Your task to perform on an android device: turn on translation in the chrome app Image 0: 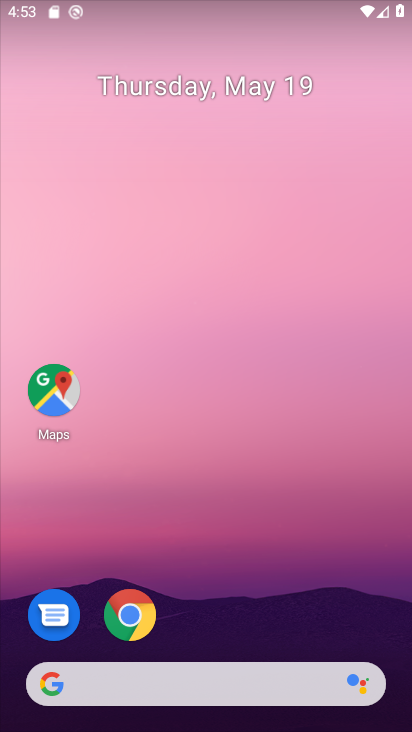
Step 0: drag from (212, 606) to (309, 58)
Your task to perform on an android device: turn on translation in the chrome app Image 1: 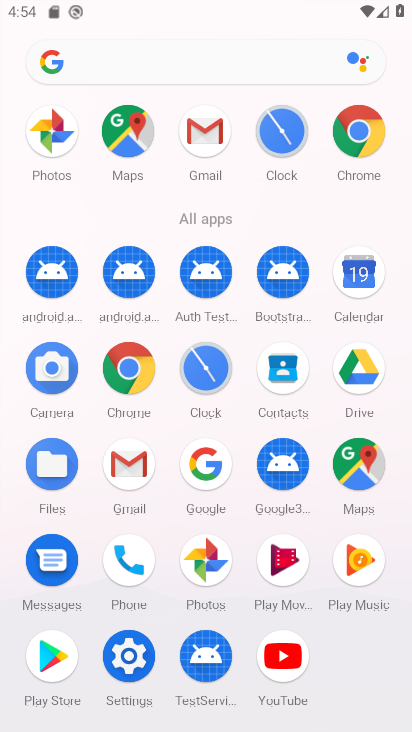
Step 1: click (124, 365)
Your task to perform on an android device: turn on translation in the chrome app Image 2: 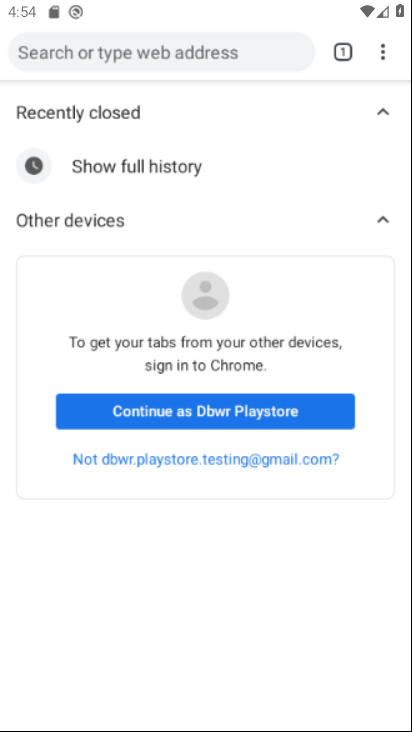
Step 2: click (384, 57)
Your task to perform on an android device: turn on translation in the chrome app Image 3: 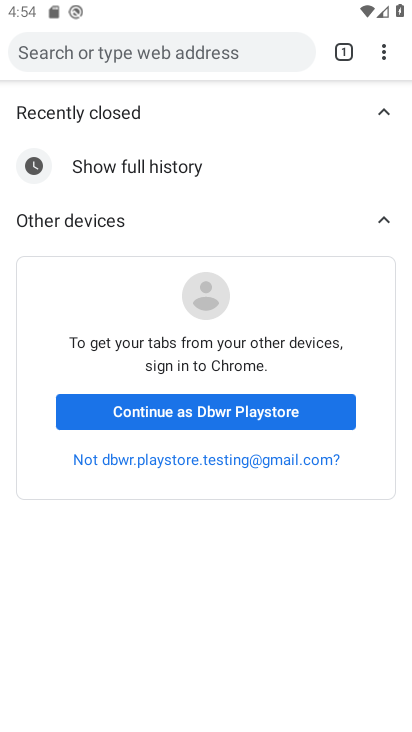
Step 3: click (384, 57)
Your task to perform on an android device: turn on translation in the chrome app Image 4: 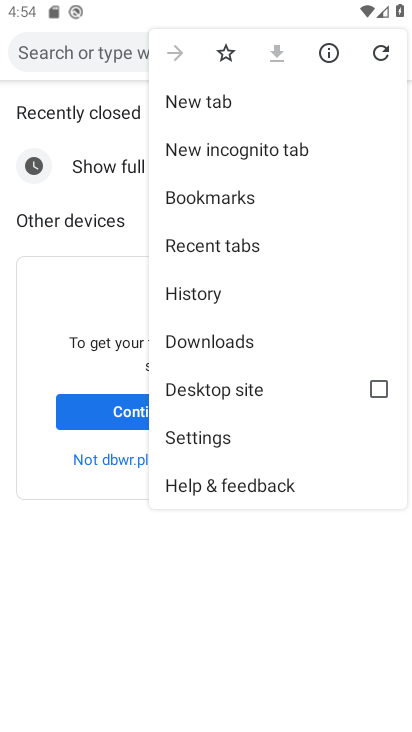
Step 4: click (230, 441)
Your task to perform on an android device: turn on translation in the chrome app Image 5: 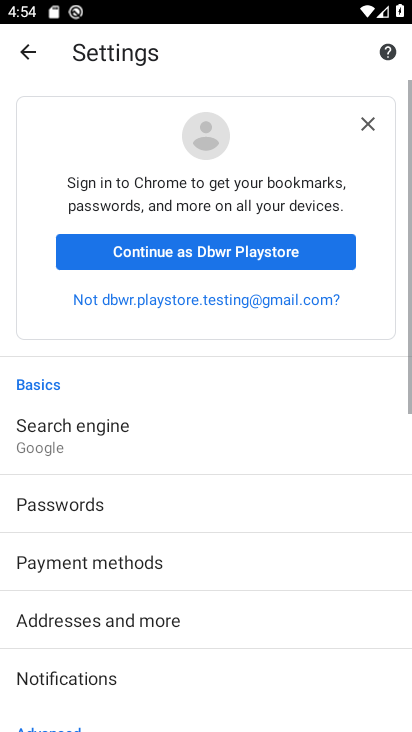
Step 5: drag from (225, 638) to (239, 78)
Your task to perform on an android device: turn on translation in the chrome app Image 6: 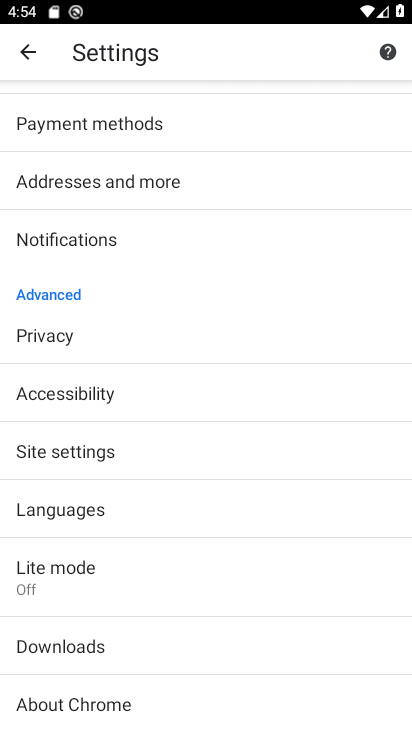
Step 6: click (81, 512)
Your task to perform on an android device: turn on translation in the chrome app Image 7: 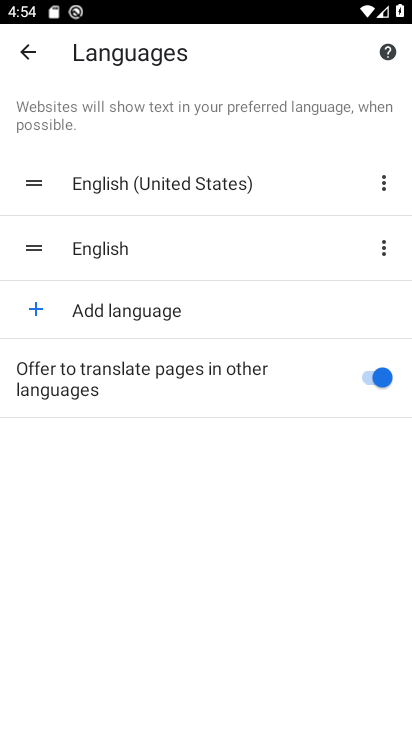
Step 7: task complete